Your task to perform on an android device: see sites visited before in the chrome app Image 0: 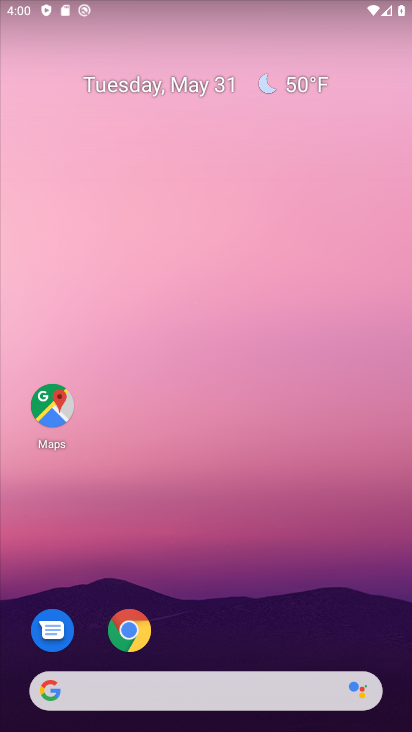
Step 0: drag from (304, 547) to (205, 47)
Your task to perform on an android device: see sites visited before in the chrome app Image 1: 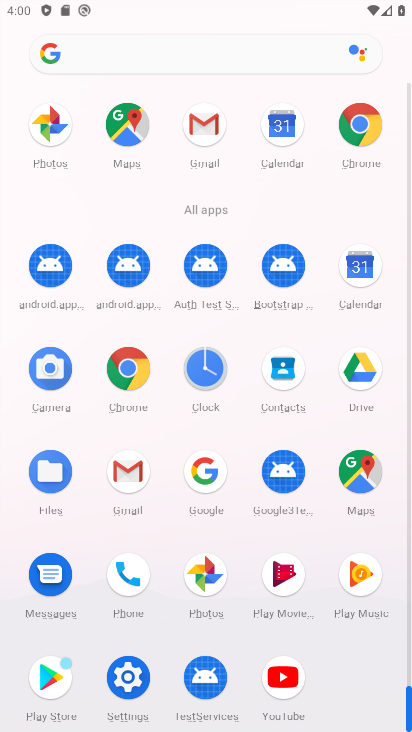
Step 1: drag from (16, 636) to (23, 265)
Your task to perform on an android device: see sites visited before in the chrome app Image 2: 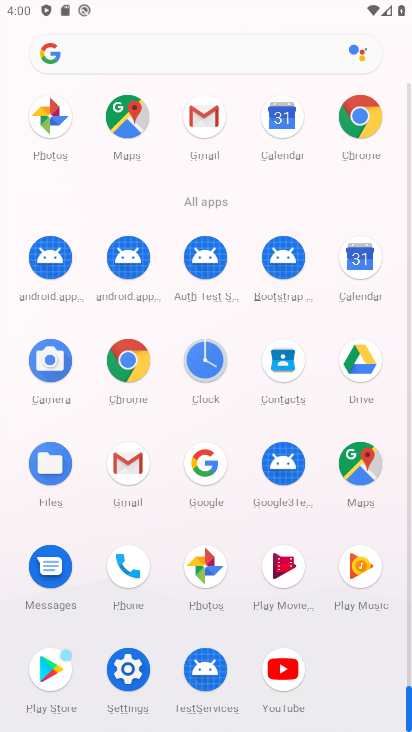
Step 2: click (128, 353)
Your task to perform on an android device: see sites visited before in the chrome app Image 3: 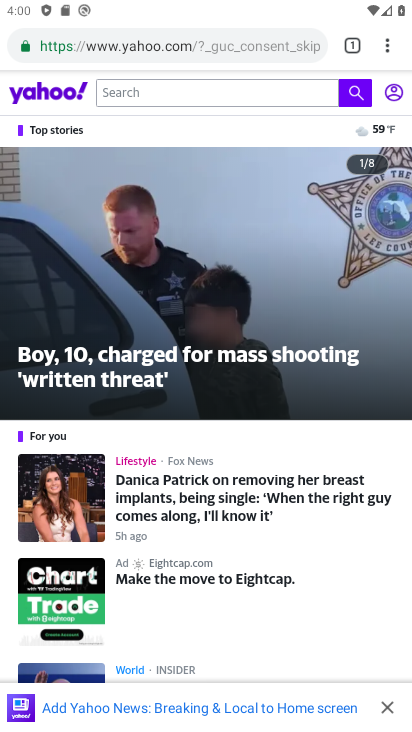
Step 3: task complete